Your task to perform on an android device: allow cookies in the chrome app Image 0: 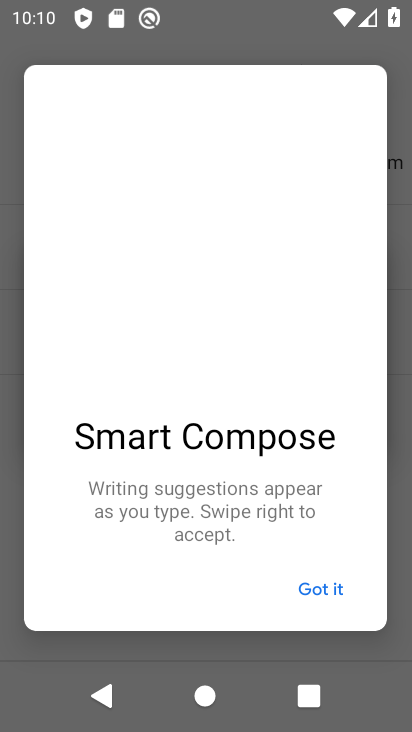
Step 0: press back button
Your task to perform on an android device: allow cookies in the chrome app Image 1: 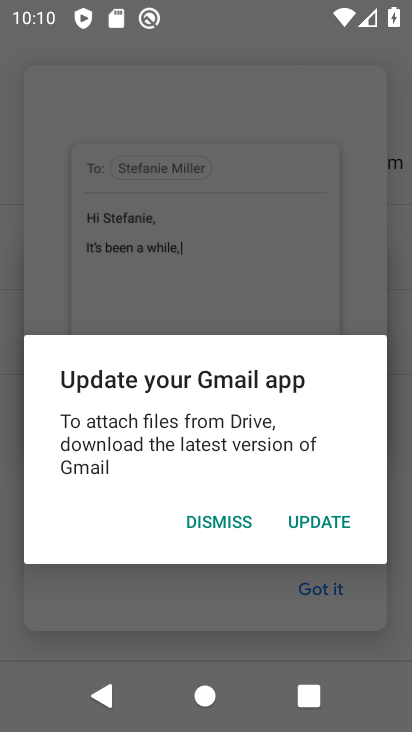
Step 1: press back button
Your task to perform on an android device: allow cookies in the chrome app Image 2: 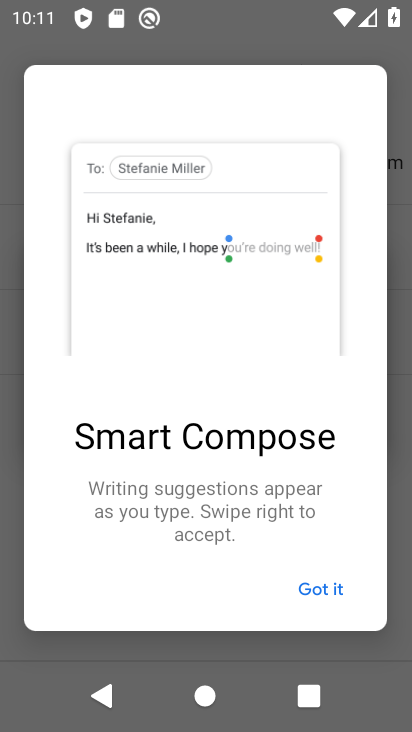
Step 2: press back button
Your task to perform on an android device: allow cookies in the chrome app Image 3: 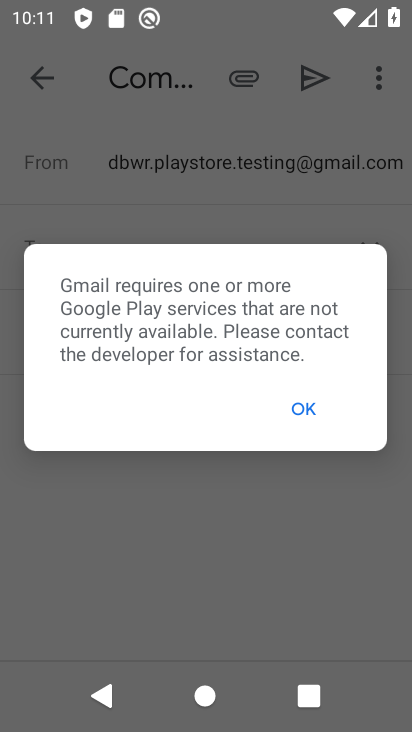
Step 3: press home button
Your task to perform on an android device: allow cookies in the chrome app Image 4: 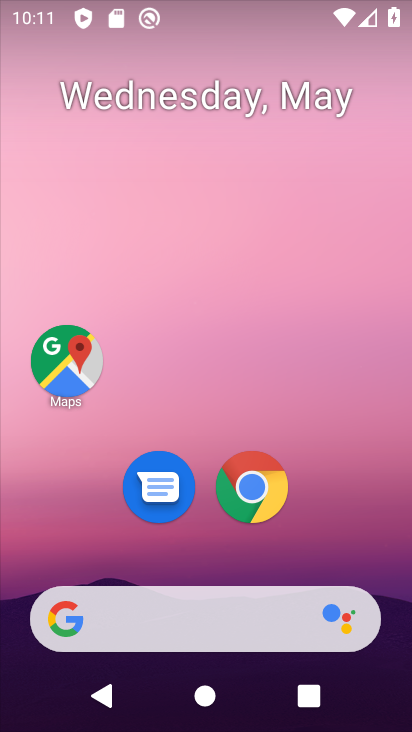
Step 4: drag from (319, 432) to (302, 18)
Your task to perform on an android device: allow cookies in the chrome app Image 5: 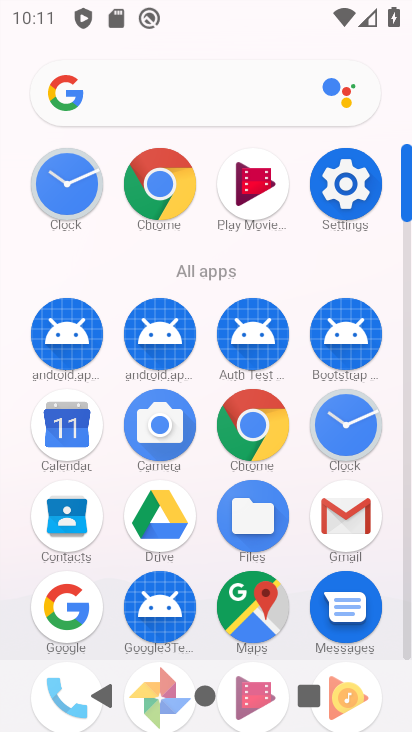
Step 5: click (156, 181)
Your task to perform on an android device: allow cookies in the chrome app Image 6: 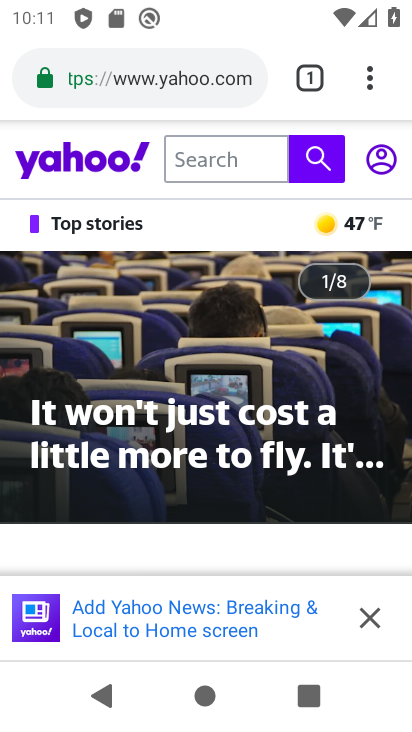
Step 6: drag from (373, 76) to (116, 535)
Your task to perform on an android device: allow cookies in the chrome app Image 7: 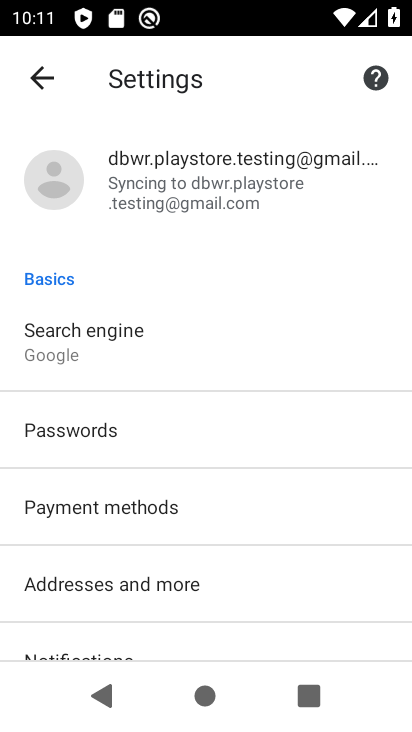
Step 7: drag from (219, 548) to (245, 184)
Your task to perform on an android device: allow cookies in the chrome app Image 8: 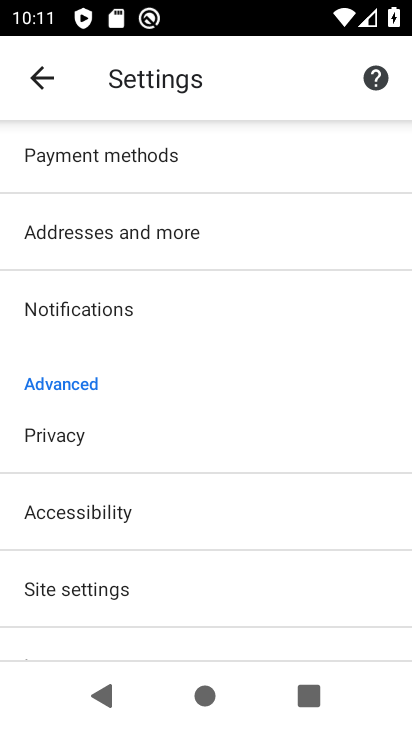
Step 8: drag from (245, 469) to (270, 140)
Your task to perform on an android device: allow cookies in the chrome app Image 9: 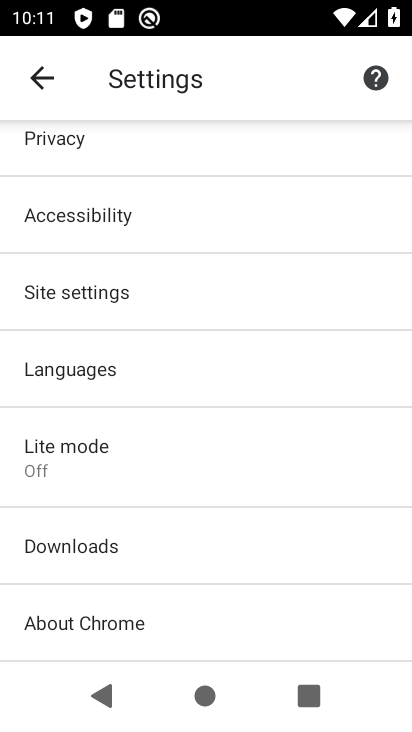
Step 9: drag from (310, 563) to (308, 181)
Your task to perform on an android device: allow cookies in the chrome app Image 10: 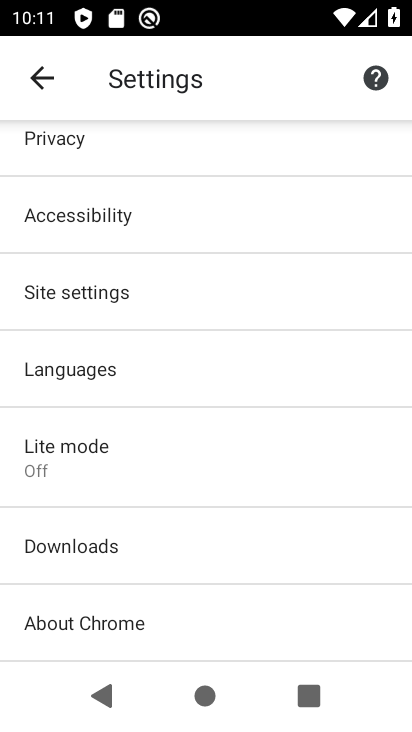
Step 10: drag from (201, 557) to (220, 204)
Your task to perform on an android device: allow cookies in the chrome app Image 11: 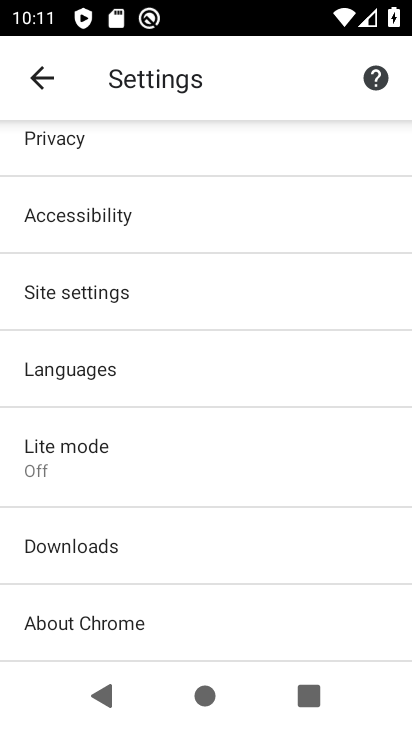
Step 11: click (164, 282)
Your task to perform on an android device: allow cookies in the chrome app Image 12: 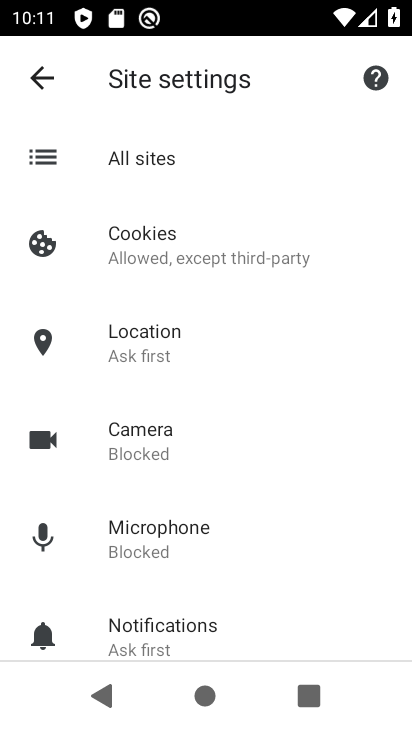
Step 12: click (211, 253)
Your task to perform on an android device: allow cookies in the chrome app Image 13: 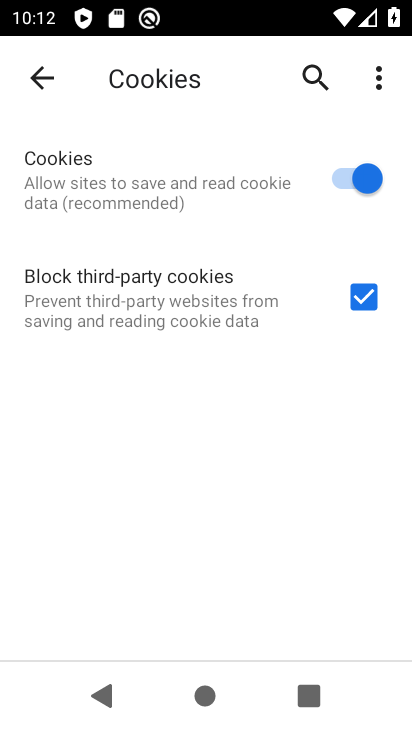
Step 13: task complete